Your task to perform on an android device: Clear the cart on ebay.com. Add "alienware area 51" to the cart on ebay.com Image 0: 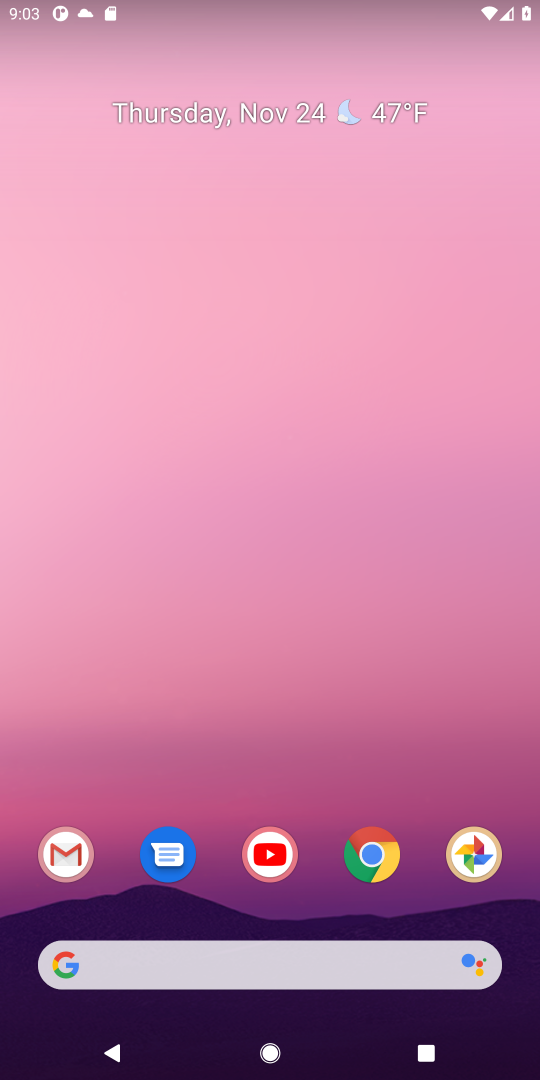
Step 0: click (390, 869)
Your task to perform on an android device: Clear the cart on ebay.com. Add "alienware area 51" to the cart on ebay.com Image 1: 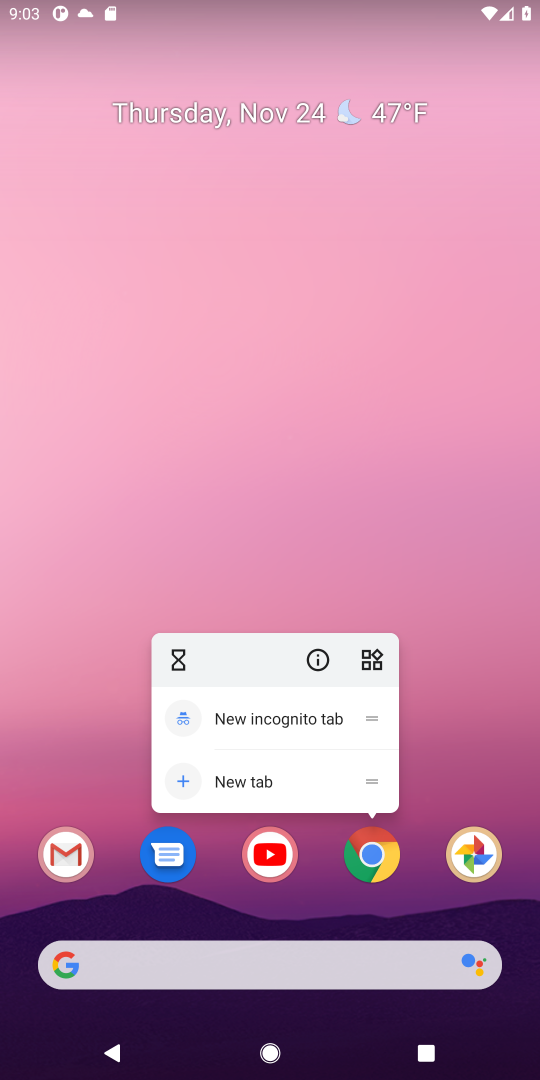
Step 1: click (369, 869)
Your task to perform on an android device: Clear the cart on ebay.com. Add "alienware area 51" to the cart on ebay.com Image 2: 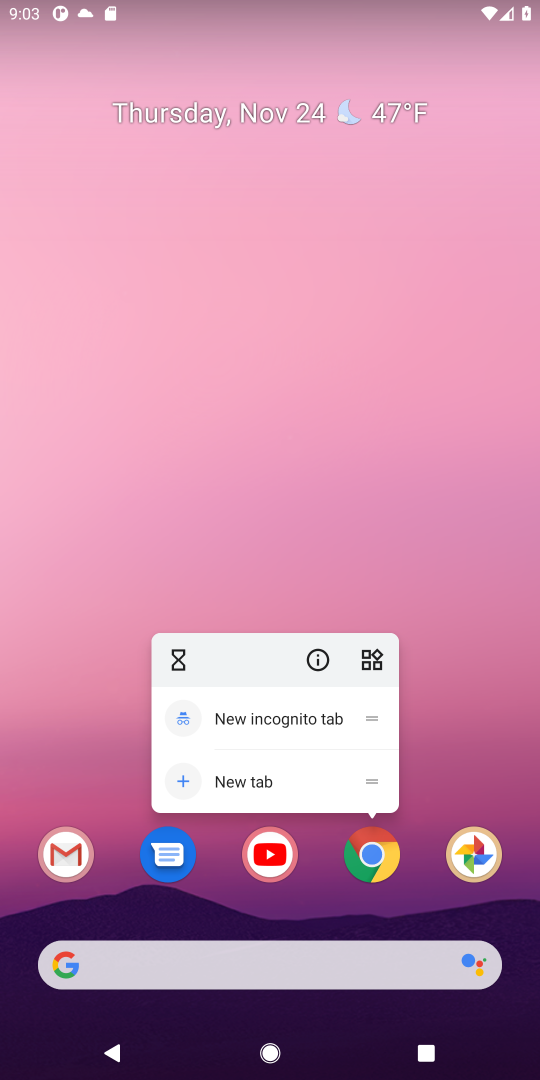
Step 2: click (370, 866)
Your task to perform on an android device: Clear the cart on ebay.com. Add "alienware area 51" to the cart on ebay.com Image 3: 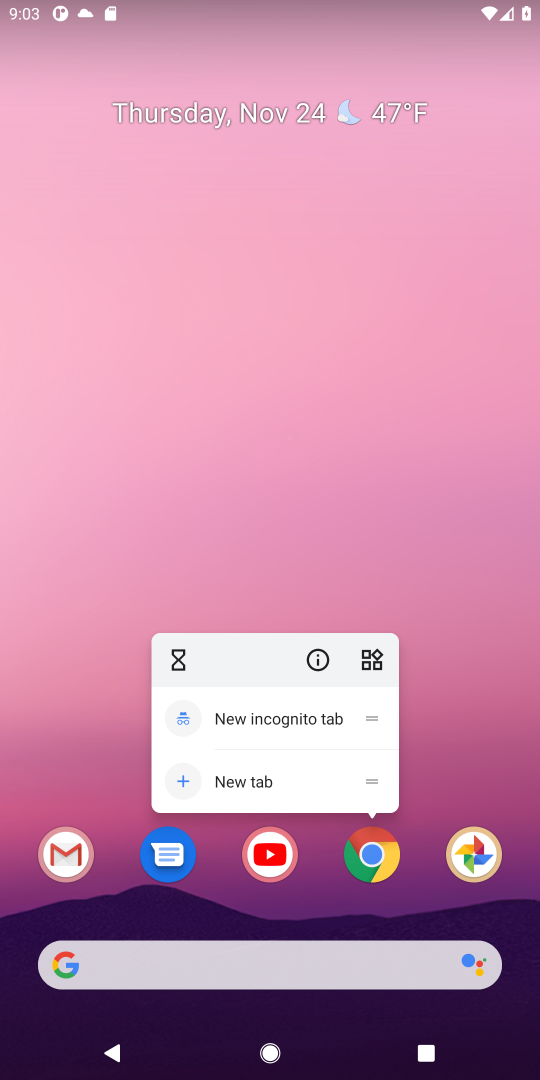
Step 3: click (376, 856)
Your task to perform on an android device: Clear the cart on ebay.com. Add "alienware area 51" to the cart on ebay.com Image 4: 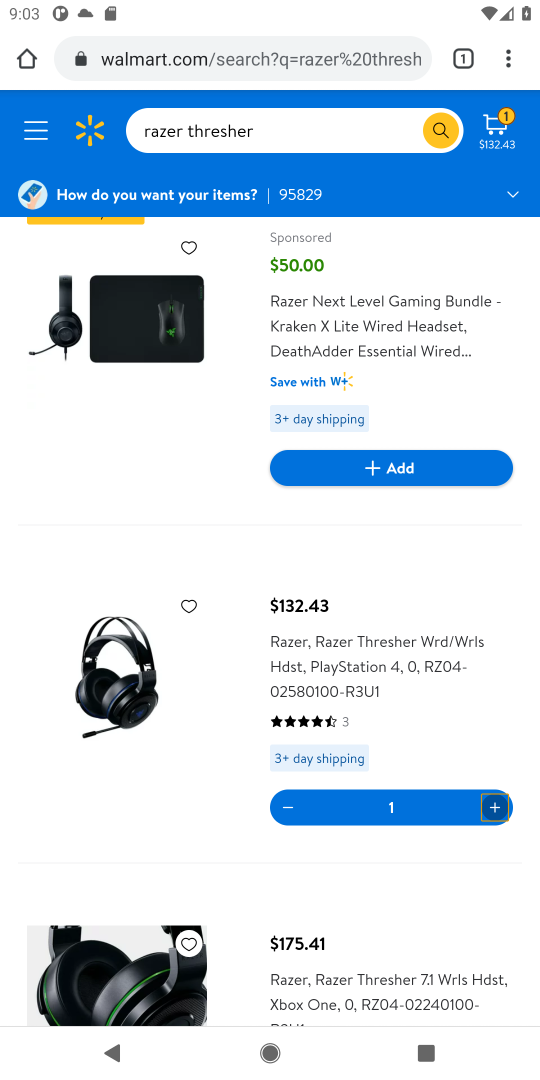
Step 4: click (184, 54)
Your task to perform on an android device: Clear the cart on ebay.com. Add "alienware area 51" to the cart on ebay.com Image 5: 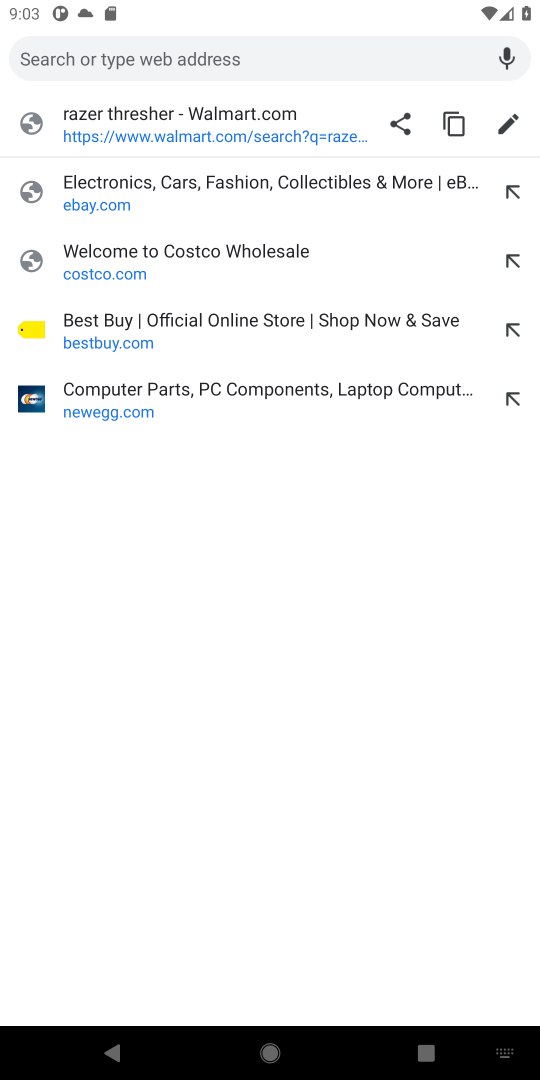
Step 5: click (81, 196)
Your task to perform on an android device: Clear the cart on ebay.com. Add "alienware area 51" to the cart on ebay.com Image 6: 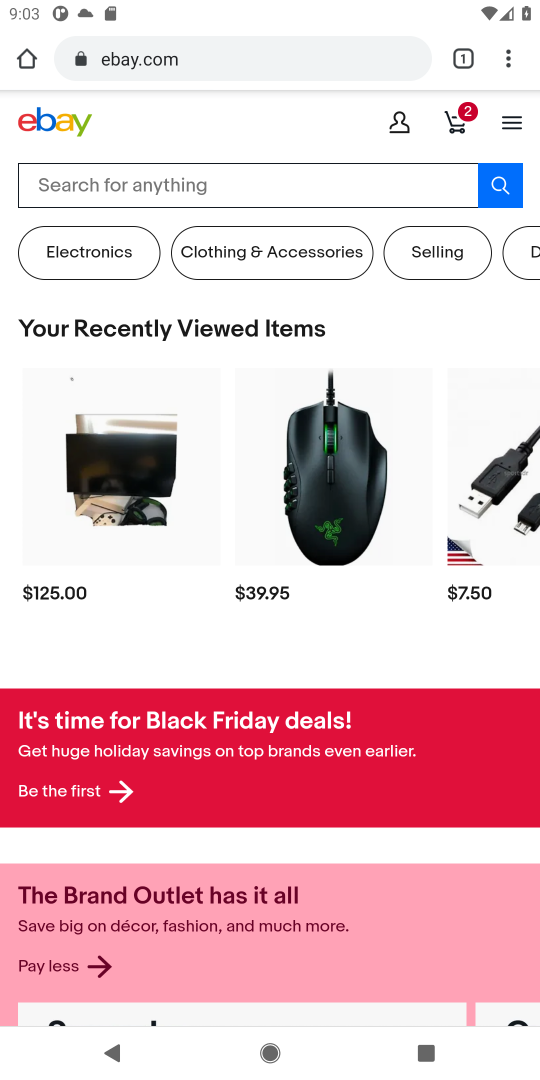
Step 6: click (458, 126)
Your task to perform on an android device: Clear the cart on ebay.com. Add "alienware area 51" to the cart on ebay.com Image 7: 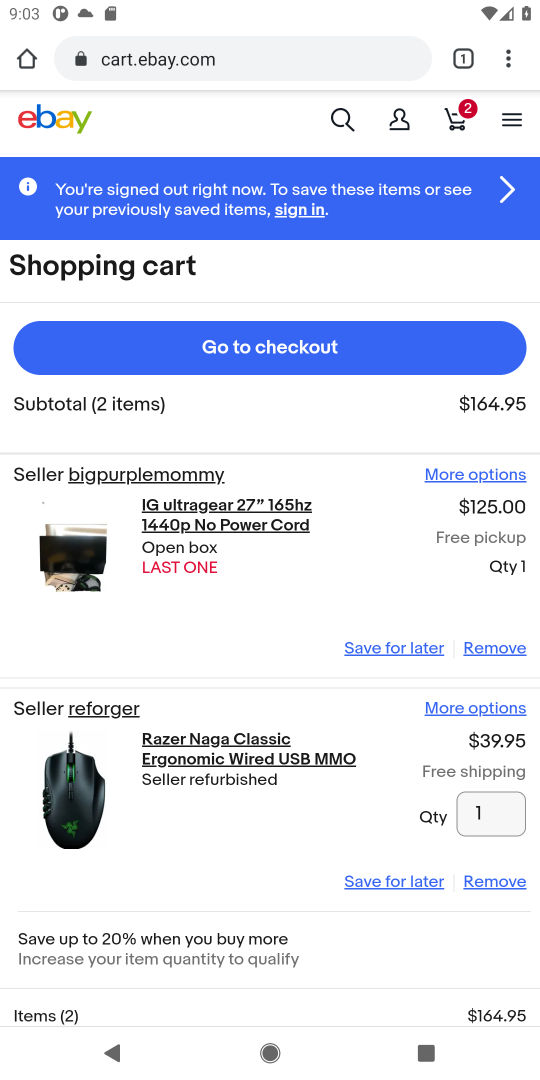
Step 7: click (509, 653)
Your task to perform on an android device: Clear the cart on ebay.com. Add "alienware area 51" to the cart on ebay.com Image 8: 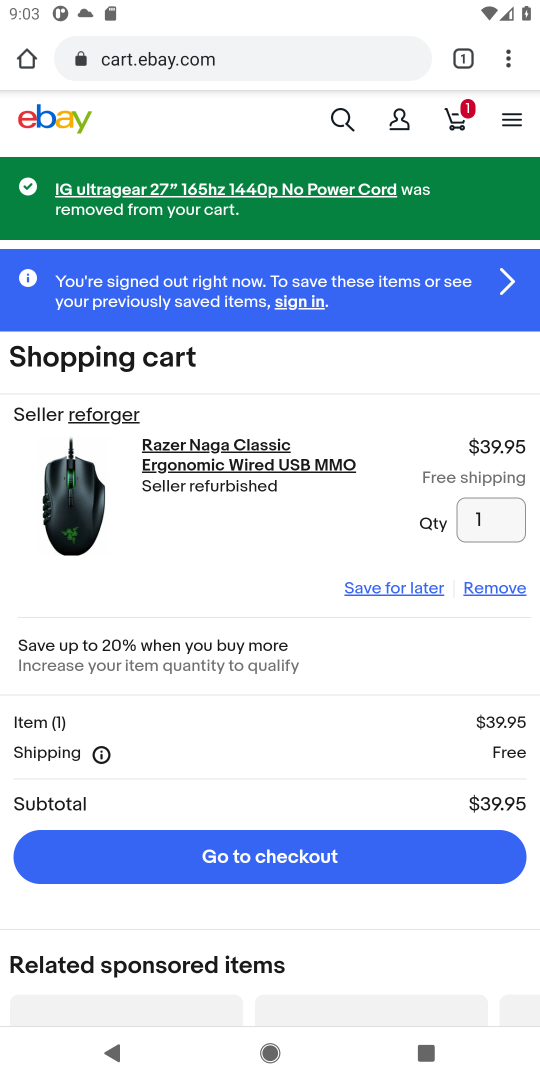
Step 8: click (473, 586)
Your task to perform on an android device: Clear the cart on ebay.com. Add "alienware area 51" to the cart on ebay.com Image 9: 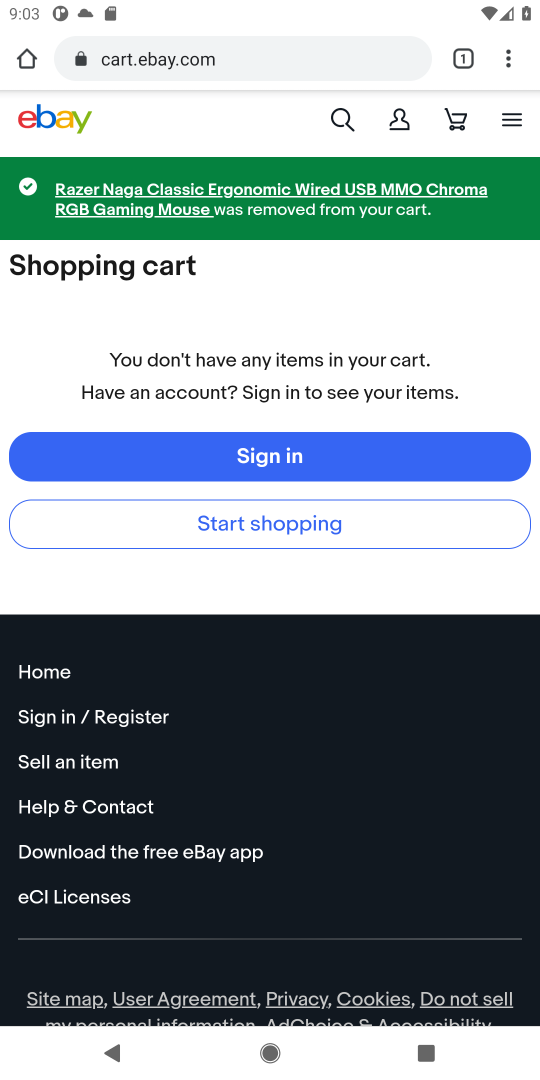
Step 9: click (340, 119)
Your task to perform on an android device: Clear the cart on ebay.com. Add "alienware area 51" to the cart on ebay.com Image 10: 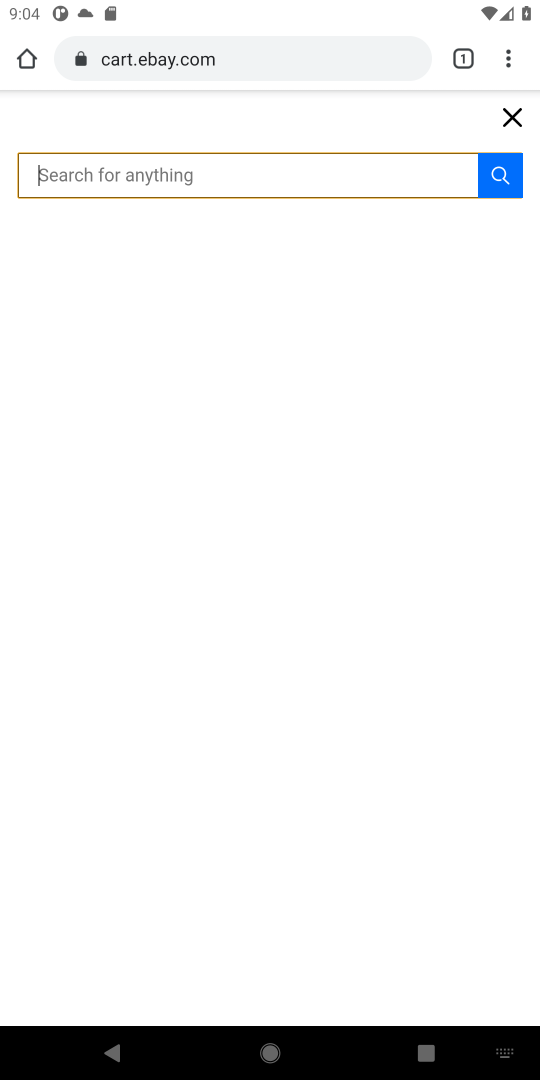
Step 10: type "alienware area 51"
Your task to perform on an android device: Clear the cart on ebay.com. Add "alienware area 51" to the cart on ebay.com Image 11: 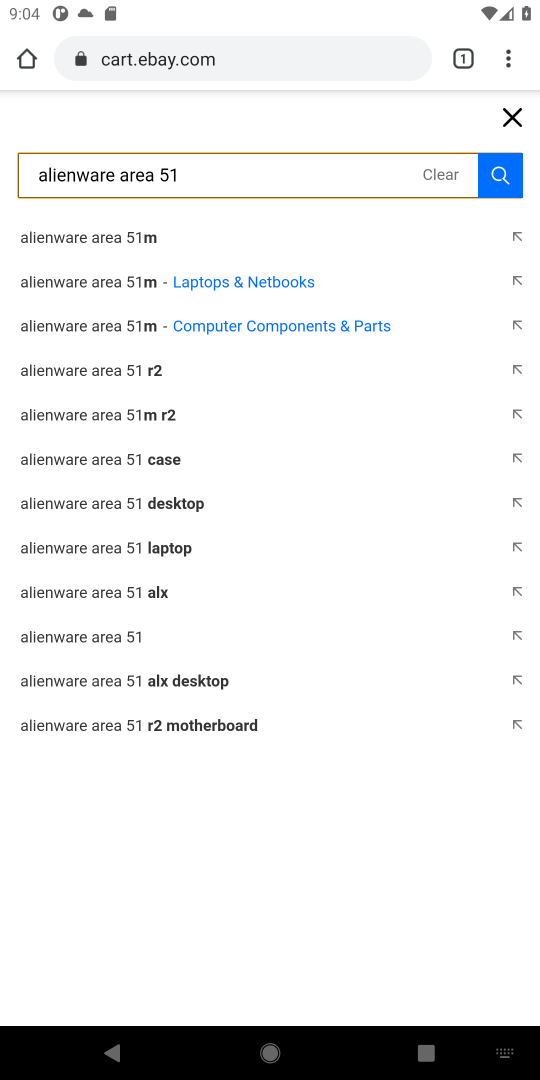
Step 11: click (110, 648)
Your task to perform on an android device: Clear the cart on ebay.com. Add "alienware area 51" to the cart on ebay.com Image 12: 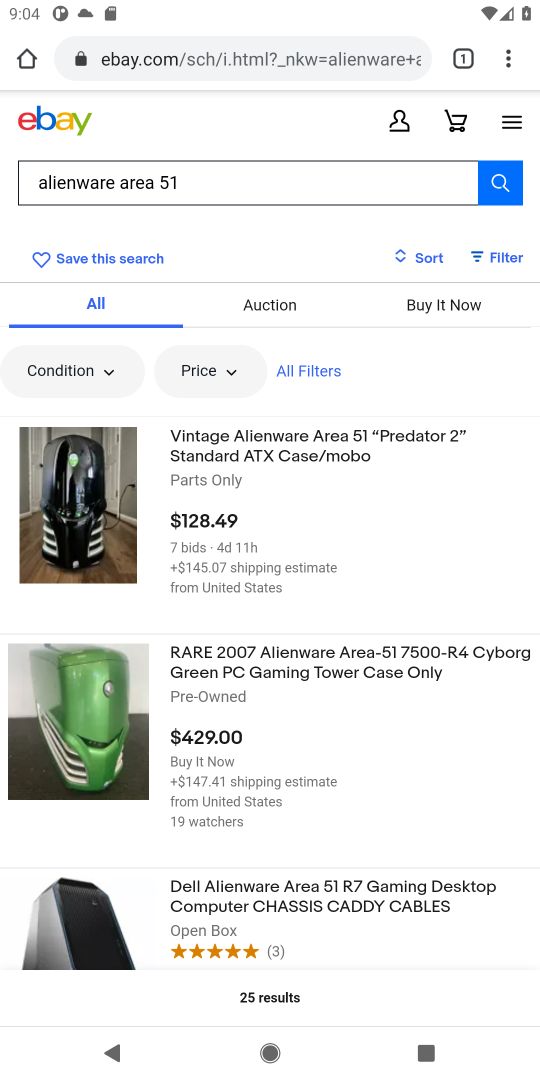
Step 12: click (85, 530)
Your task to perform on an android device: Clear the cart on ebay.com. Add "alienware area 51" to the cart on ebay.com Image 13: 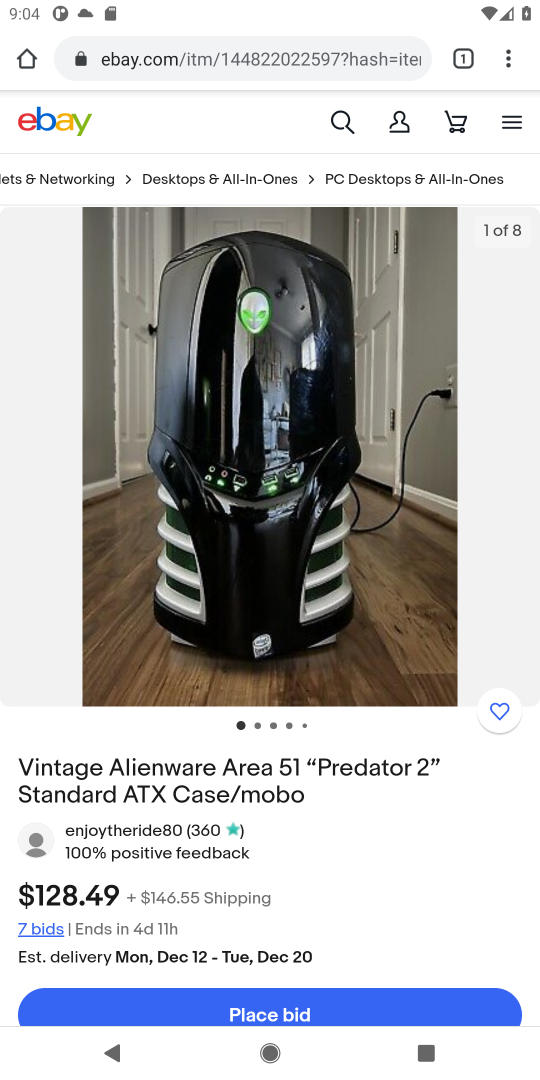
Step 13: press back button
Your task to perform on an android device: Clear the cart on ebay.com. Add "alienware area 51" to the cart on ebay.com Image 14: 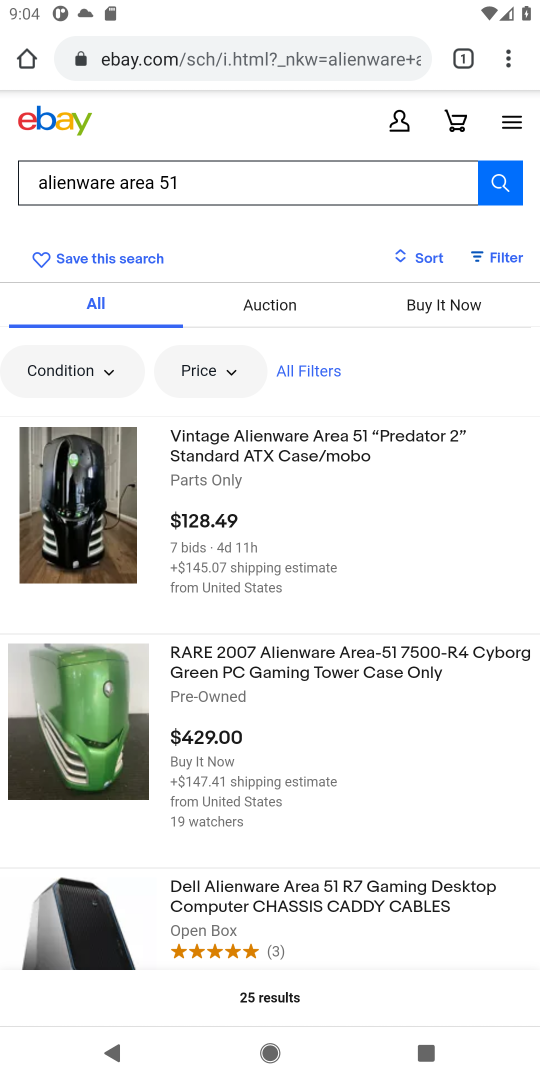
Step 14: click (81, 728)
Your task to perform on an android device: Clear the cart on ebay.com. Add "alienware area 51" to the cart on ebay.com Image 15: 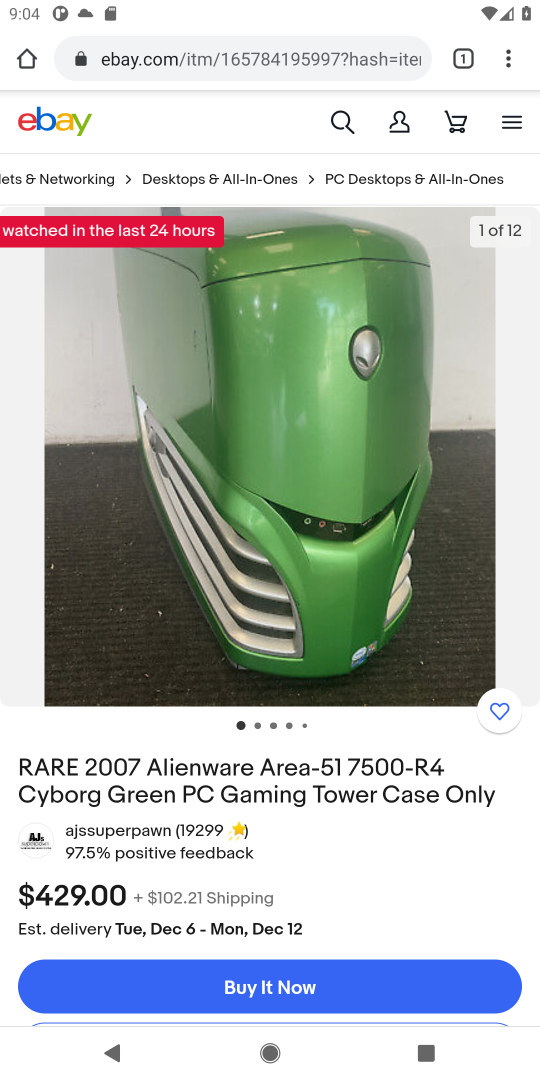
Step 15: drag from (177, 781) to (228, 486)
Your task to perform on an android device: Clear the cart on ebay.com. Add "alienware area 51" to the cart on ebay.com Image 16: 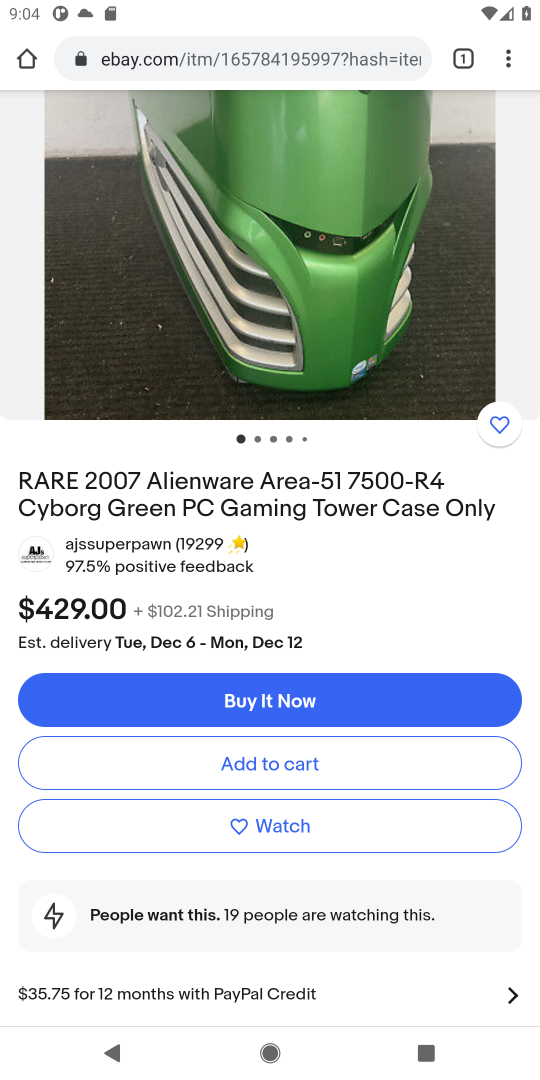
Step 16: click (232, 764)
Your task to perform on an android device: Clear the cart on ebay.com. Add "alienware area 51" to the cart on ebay.com Image 17: 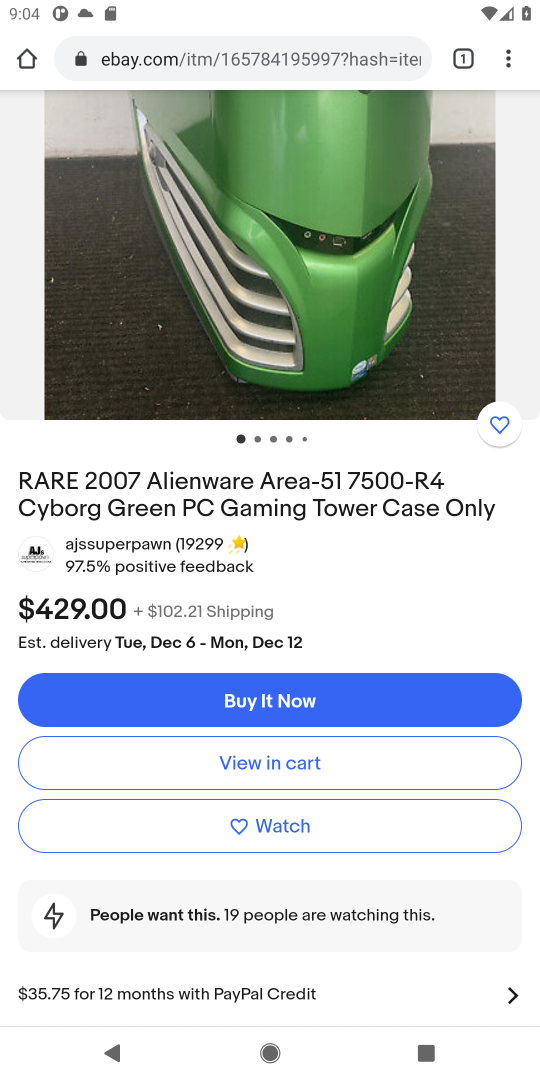
Step 17: task complete